Your task to perform on an android device: search for starred emails in the gmail app Image 0: 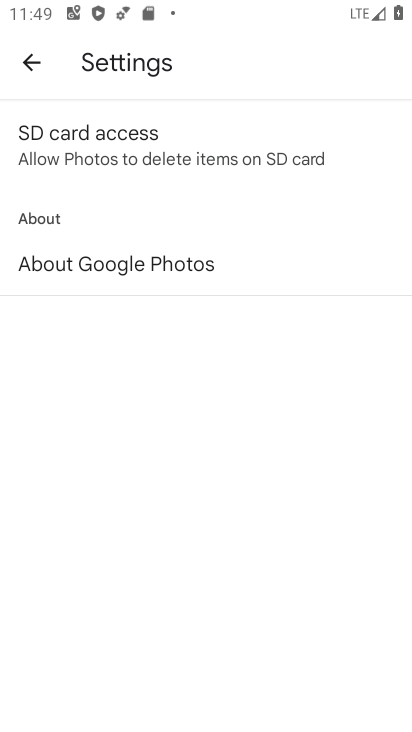
Step 0: press home button
Your task to perform on an android device: search for starred emails in the gmail app Image 1: 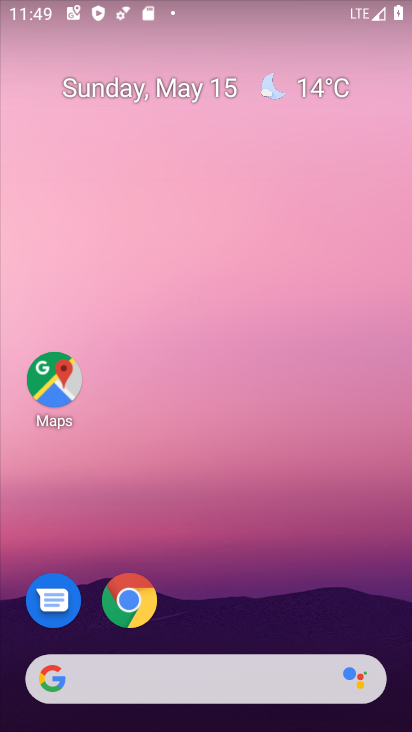
Step 1: drag from (380, 620) to (322, 136)
Your task to perform on an android device: search for starred emails in the gmail app Image 2: 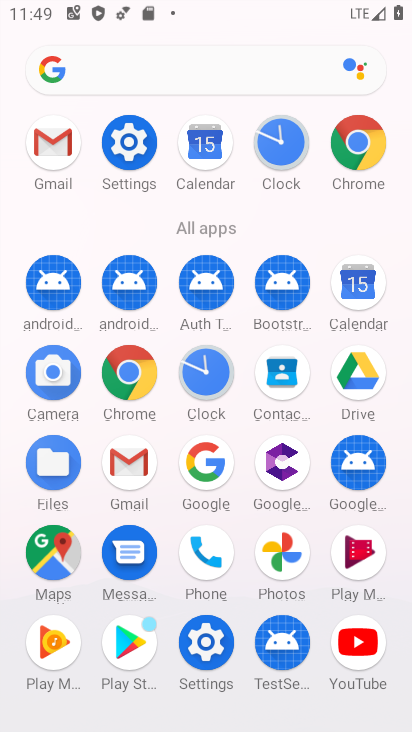
Step 2: click (127, 460)
Your task to perform on an android device: search for starred emails in the gmail app Image 3: 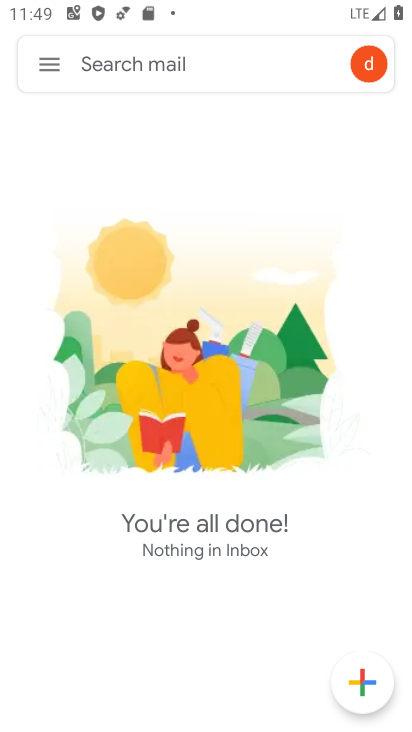
Step 3: click (49, 69)
Your task to perform on an android device: search for starred emails in the gmail app Image 4: 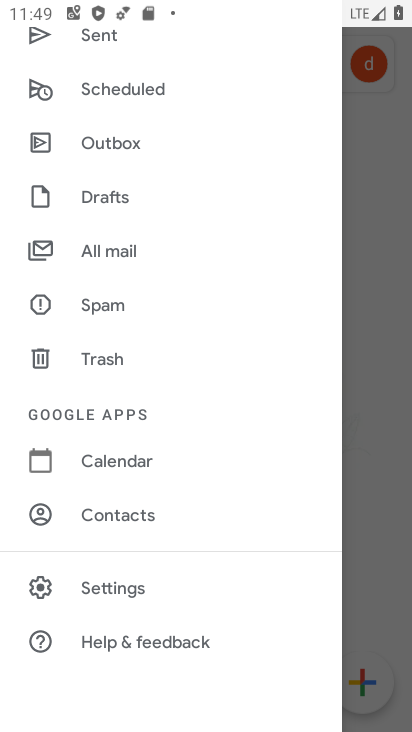
Step 4: drag from (210, 177) to (234, 480)
Your task to perform on an android device: search for starred emails in the gmail app Image 5: 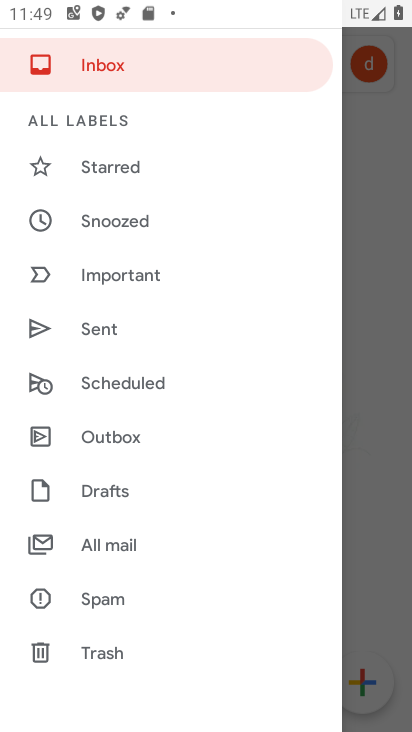
Step 5: click (113, 162)
Your task to perform on an android device: search for starred emails in the gmail app Image 6: 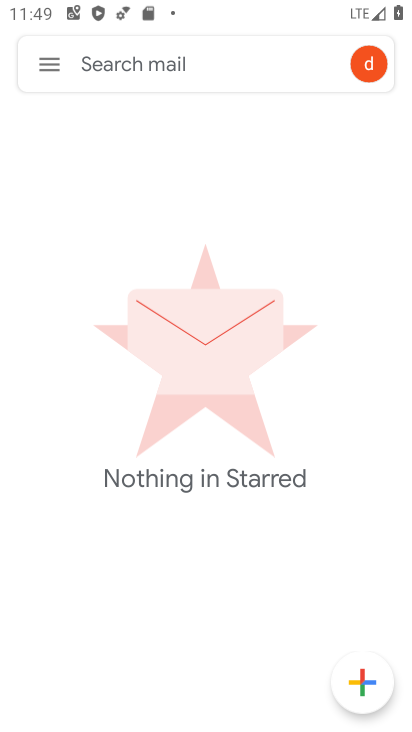
Step 6: task complete